Your task to perform on an android device: choose inbox layout in the gmail app Image 0: 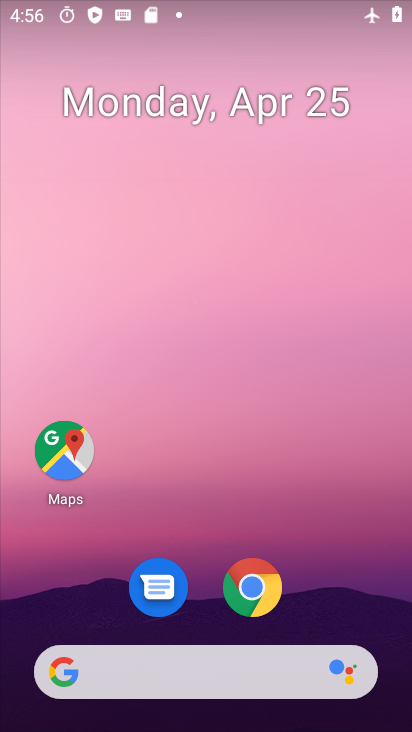
Step 0: drag from (330, 574) to (279, 165)
Your task to perform on an android device: choose inbox layout in the gmail app Image 1: 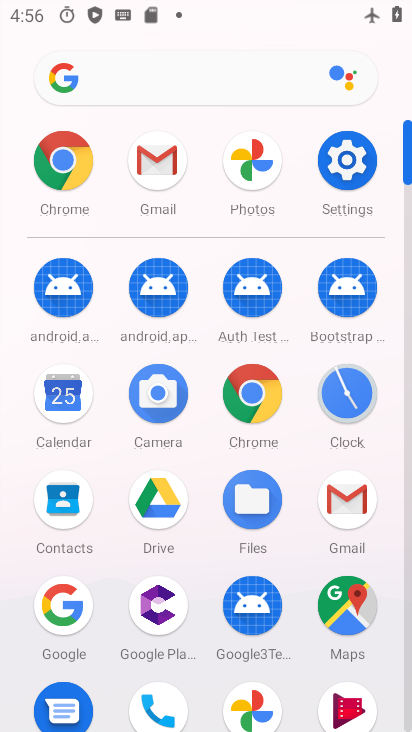
Step 1: click (351, 509)
Your task to perform on an android device: choose inbox layout in the gmail app Image 2: 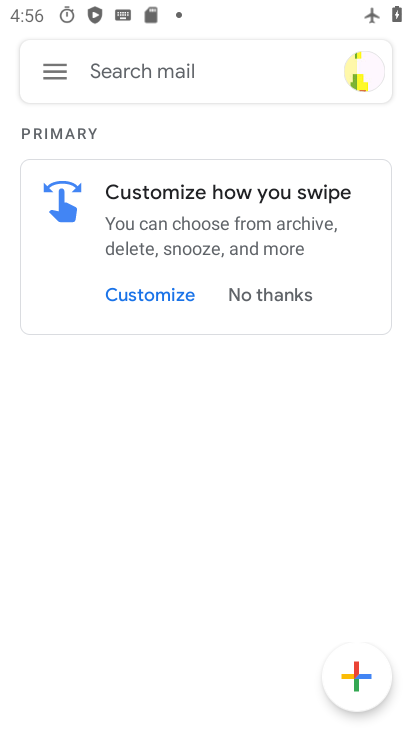
Step 2: click (47, 69)
Your task to perform on an android device: choose inbox layout in the gmail app Image 3: 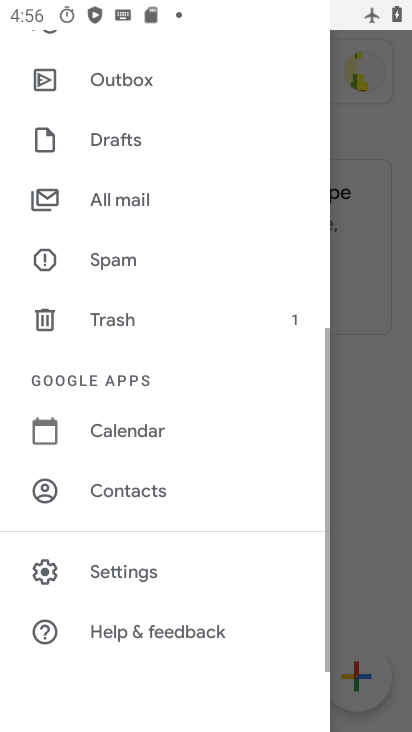
Step 3: drag from (159, 543) to (221, 77)
Your task to perform on an android device: choose inbox layout in the gmail app Image 4: 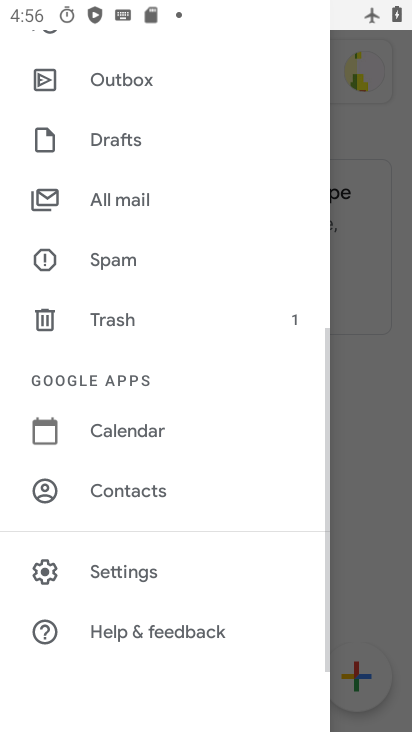
Step 4: drag from (182, 518) to (313, 172)
Your task to perform on an android device: choose inbox layout in the gmail app Image 5: 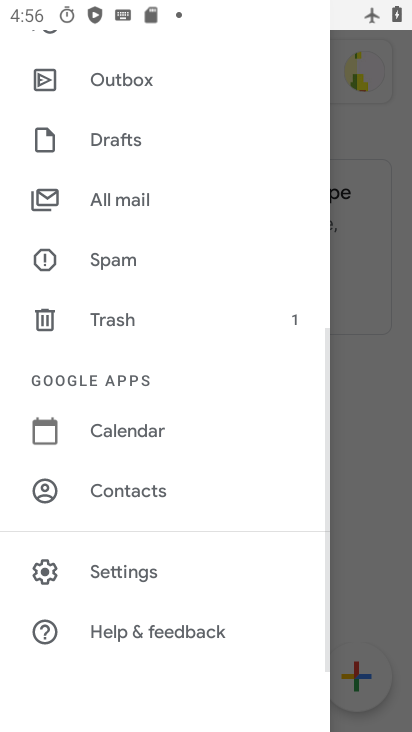
Step 5: click (141, 578)
Your task to perform on an android device: choose inbox layout in the gmail app Image 6: 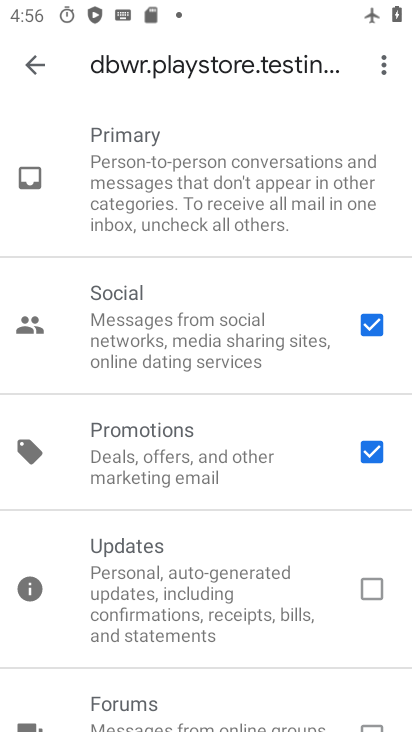
Step 6: click (48, 61)
Your task to perform on an android device: choose inbox layout in the gmail app Image 7: 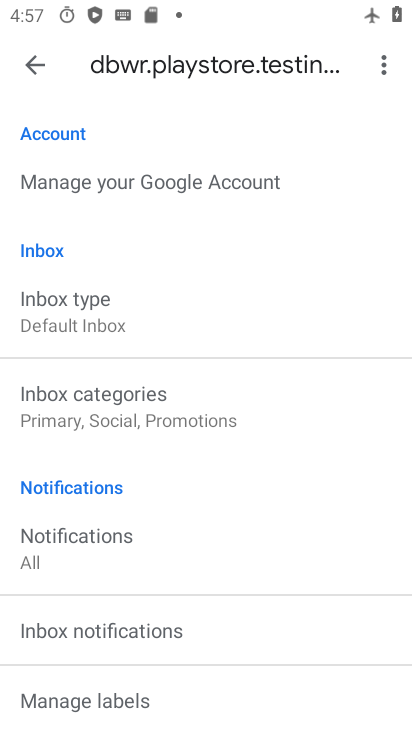
Step 7: click (96, 312)
Your task to perform on an android device: choose inbox layout in the gmail app Image 8: 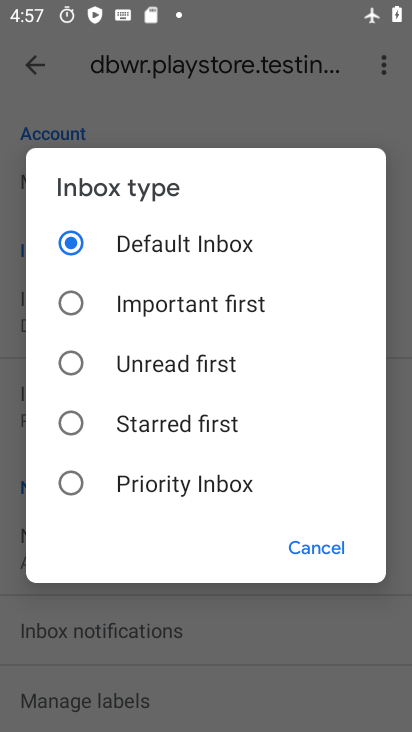
Step 8: task complete